Your task to perform on an android device: turn off javascript in the chrome app Image 0: 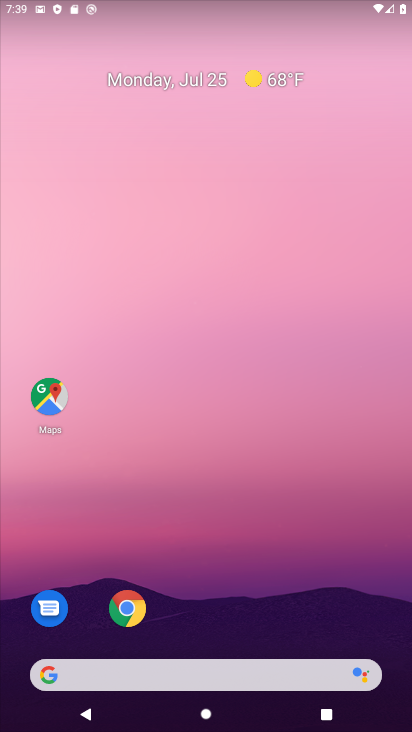
Step 0: click (134, 608)
Your task to perform on an android device: turn off javascript in the chrome app Image 1: 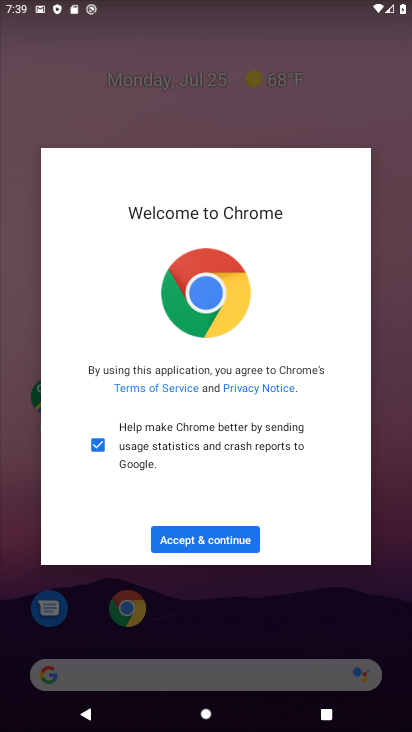
Step 1: click (196, 532)
Your task to perform on an android device: turn off javascript in the chrome app Image 2: 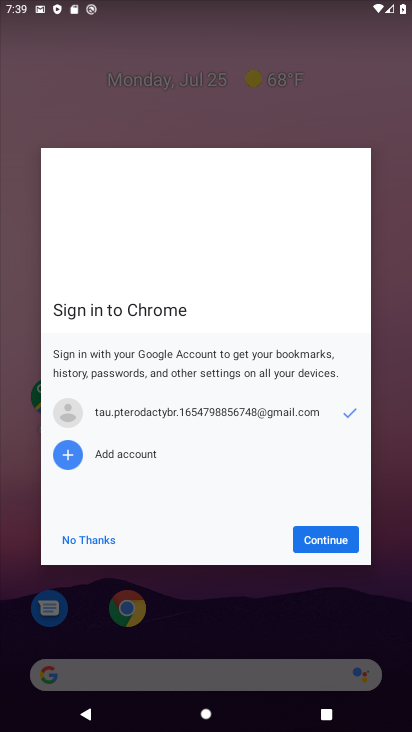
Step 2: click (96, 541)
Your task to perform on an android device: turn off javascript in the chrome app Image 3: 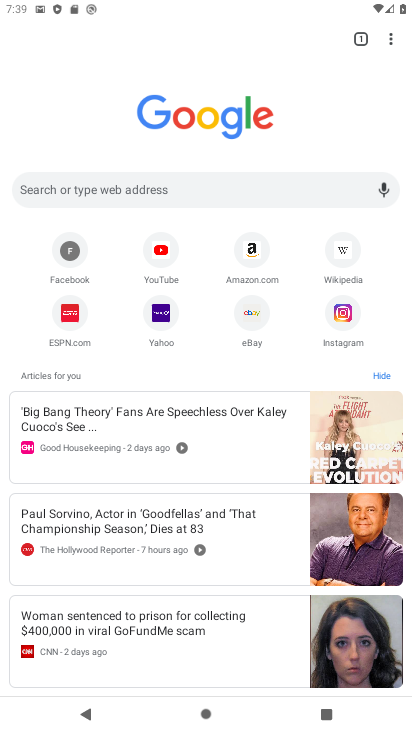
Step 3: click (394, 44)
Your task to perform on an android device: turn off javascript in the chrome app Image 4: 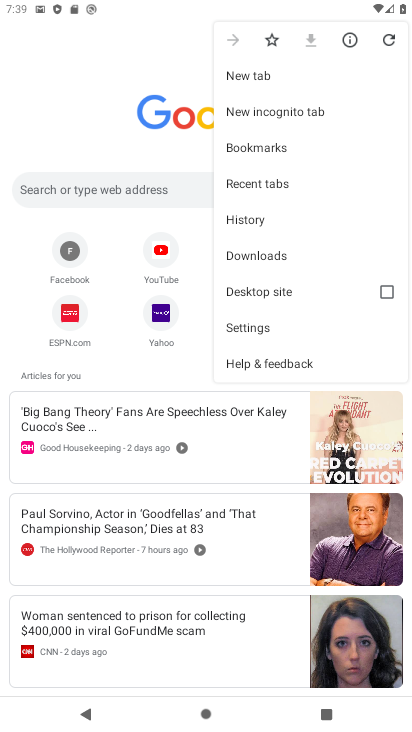
Step 4: click (237, 326)
Your task to perform on an android device: turn off javascript in the chrome app Image 5: 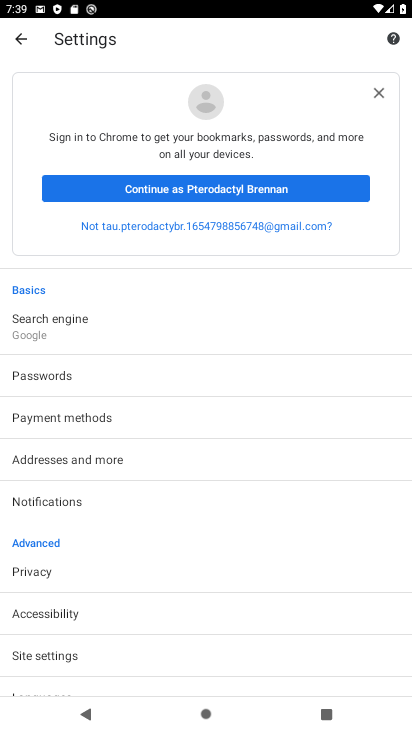
Step 5: click (49, 657)
Your task to perform on an android device: turn off javascript in the chrome app Image 6: 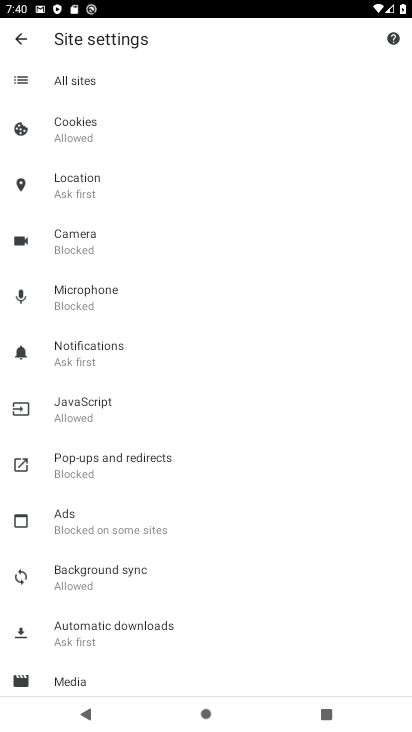
Step 6: click (89, 412)
Your task to perform on an android device: turn off javascript in the chrome app Image 7: 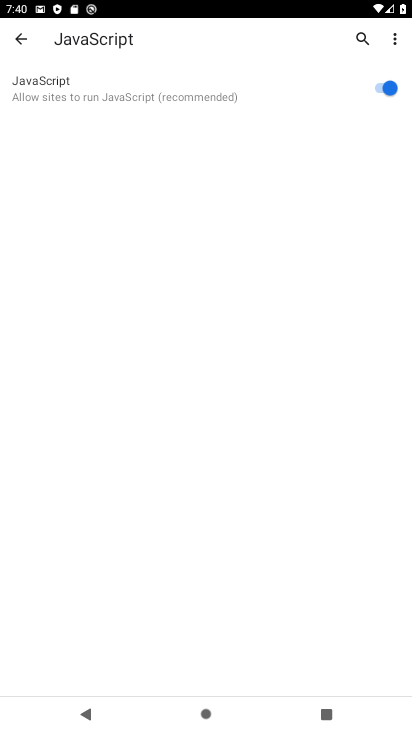
Step 7: click (387, 89)
Your task to perform on an android device: turn off javascript in the chrome app Image 8: 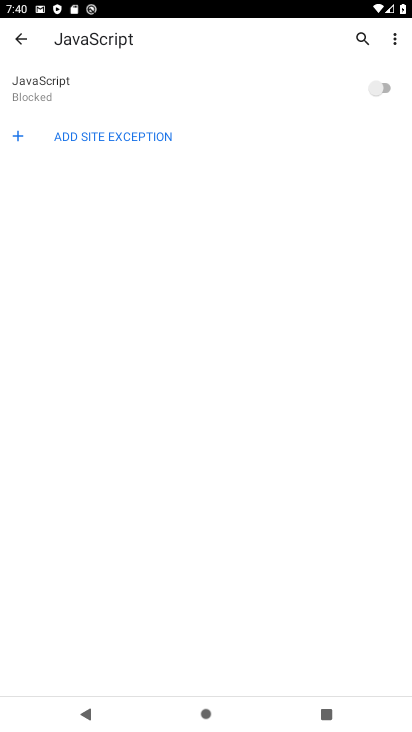
Step 8: task complete